Your task to perform on an android device: Do I have any events this weekend? Image 0: 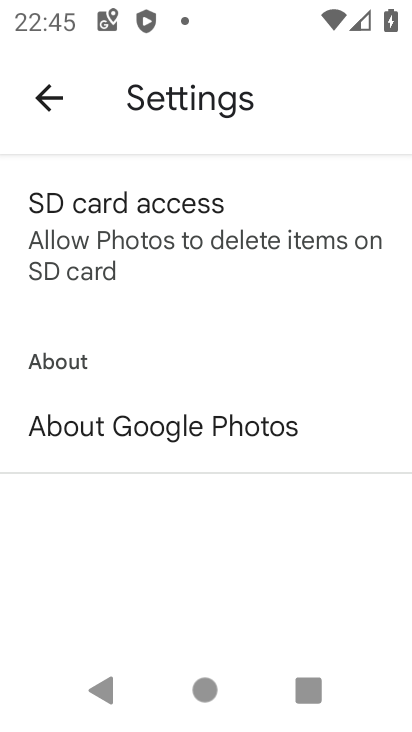
Step 0: press home button
Your task to perform on an android device: Do I have any events this weekend? Image 1: 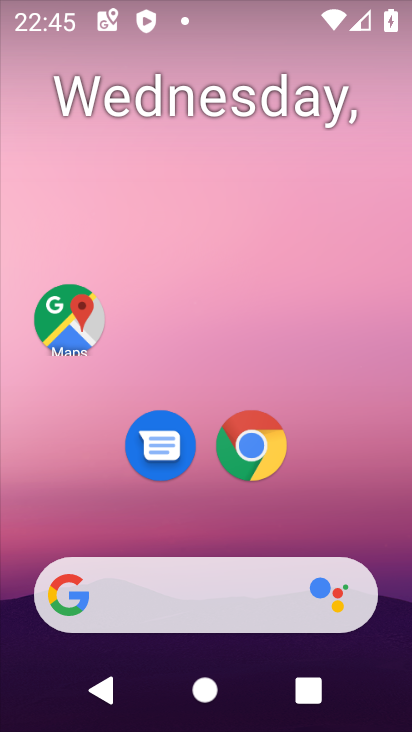
Step 1: drag from (317, 511) to (308, 155)
Your task to perform on an android device: Do I have any events this weekend? Image 2: 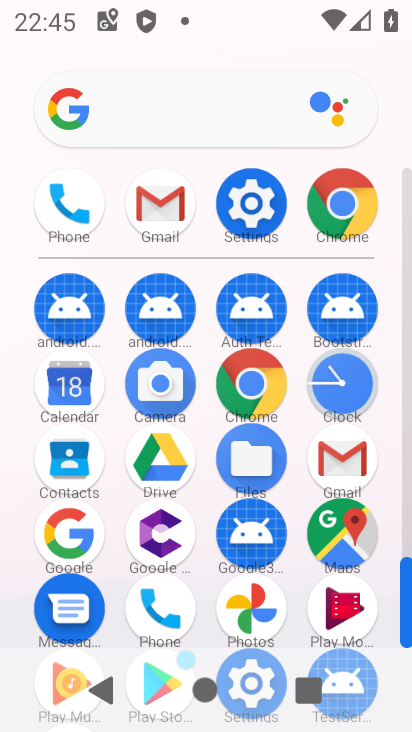
Step 2: click (55, 369)
Your task to perform on an android device: Do I have any events this weekend? Image 3: 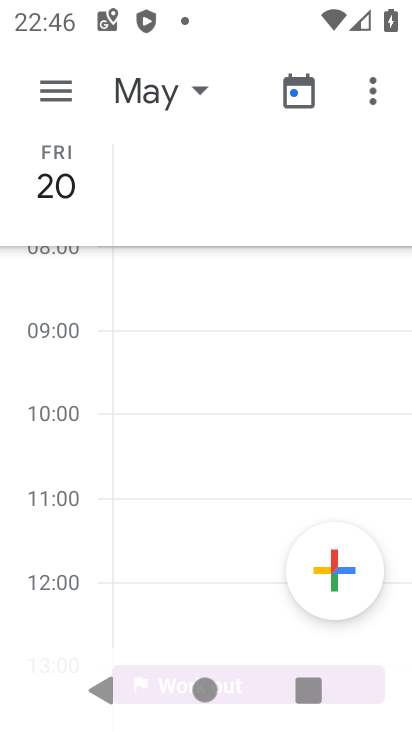
Step 3: click (55, 91)
Your task to perform on an android device: Do I have any events this weekend? Image 4: 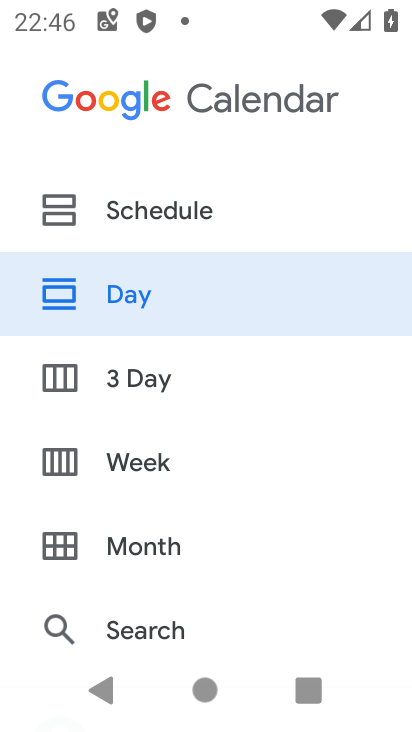
Step 4: click (135, 563)
Your task to perform on an android device: Do I have any events this weekend? Image 5: 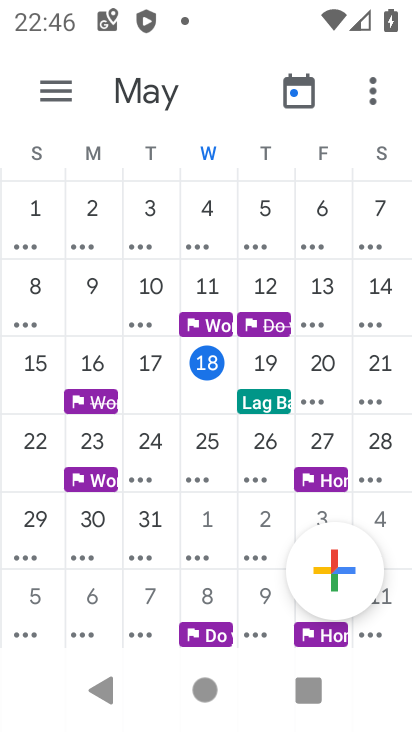
Step 5: click (152, 459)
Your task to perform on an android device: Do I have any events this weekend? Image 6: 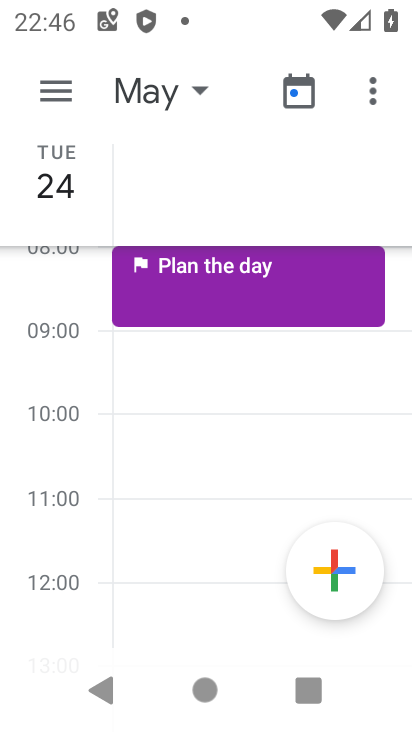
Step 6: task complete